Your task to perform on an android device: open app "Adobe Acrobat Reader: Edit PDF" Image 0: 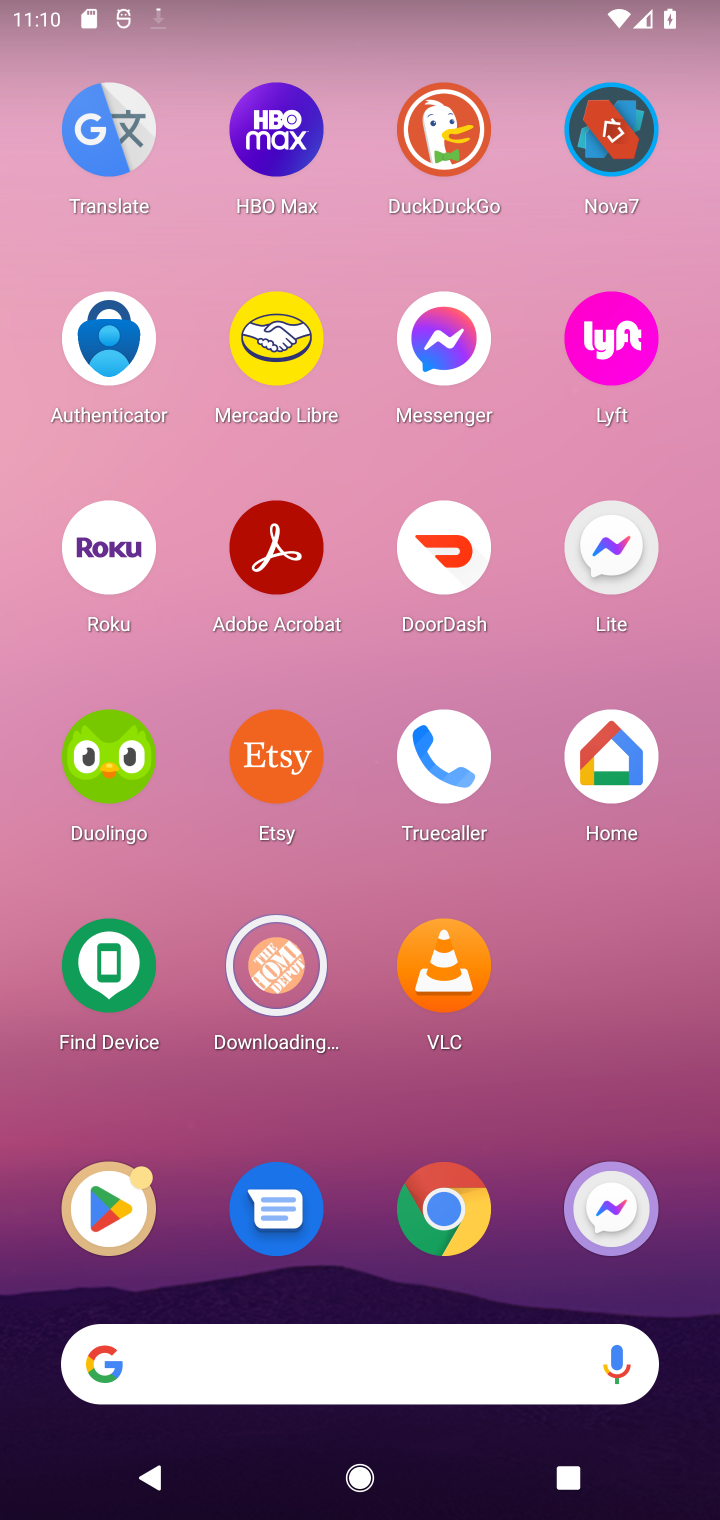
Step 0: drag from (546, 470) to (557, 80)
Your task to perform on an android device: open app "Adobe Acrobat Reader: Edit PDF" Image 1: 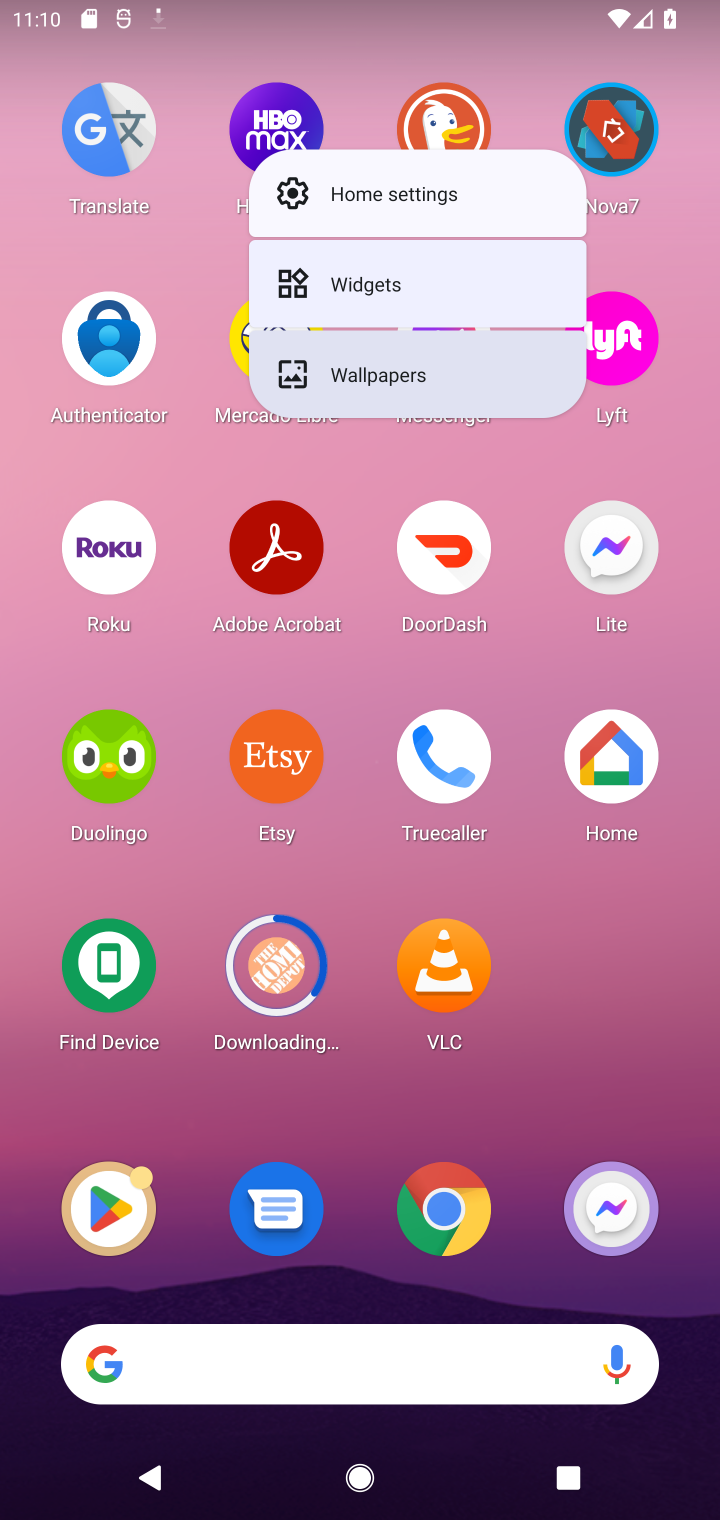
Step 1: click (625, 945)
Your task to perform on an android device: open app "Adobe Acrobat Reader: Edit PDF" Image 2: 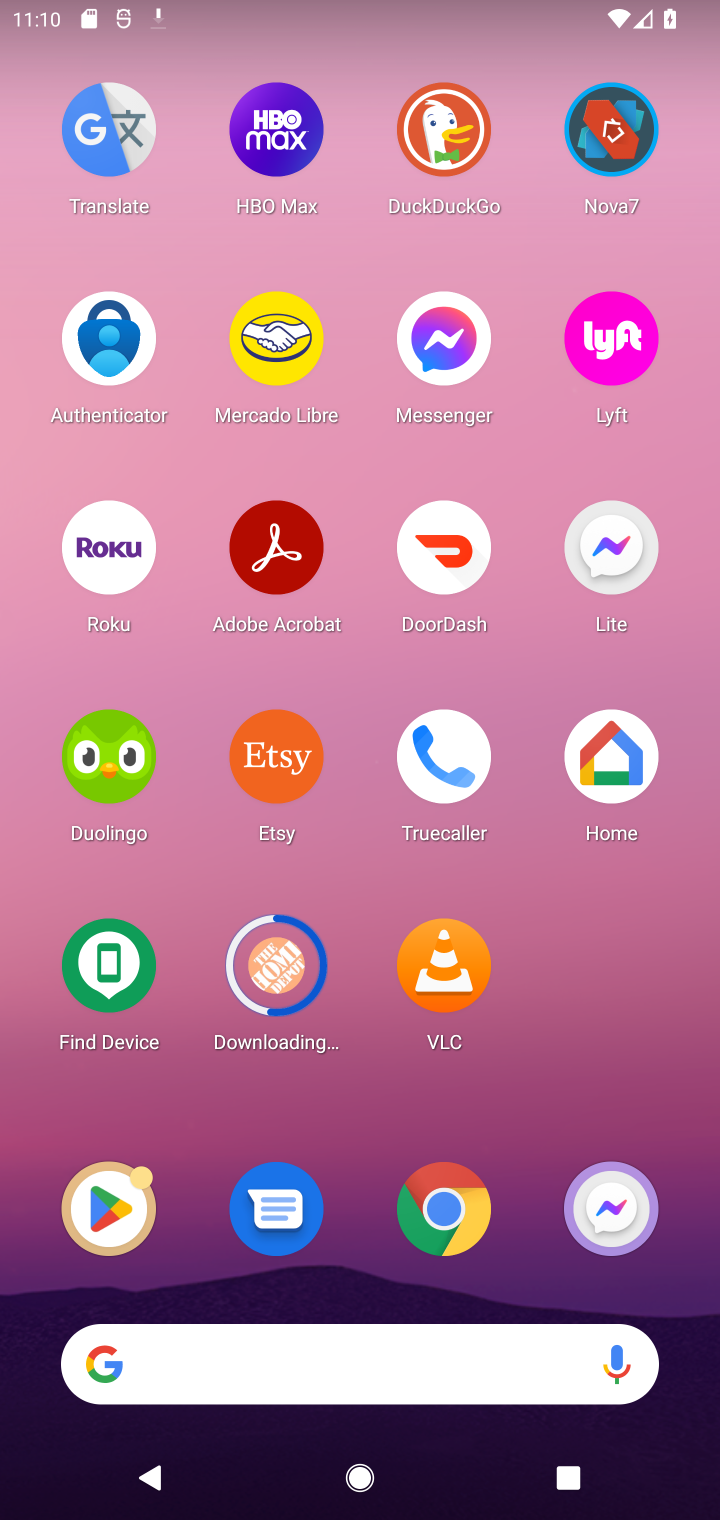
Step 2: drag from (549, 982) to (524, 35)
Your task to perform on an android device: open app "Adobe Acrobat Reader: Edit PDF" Image 3: 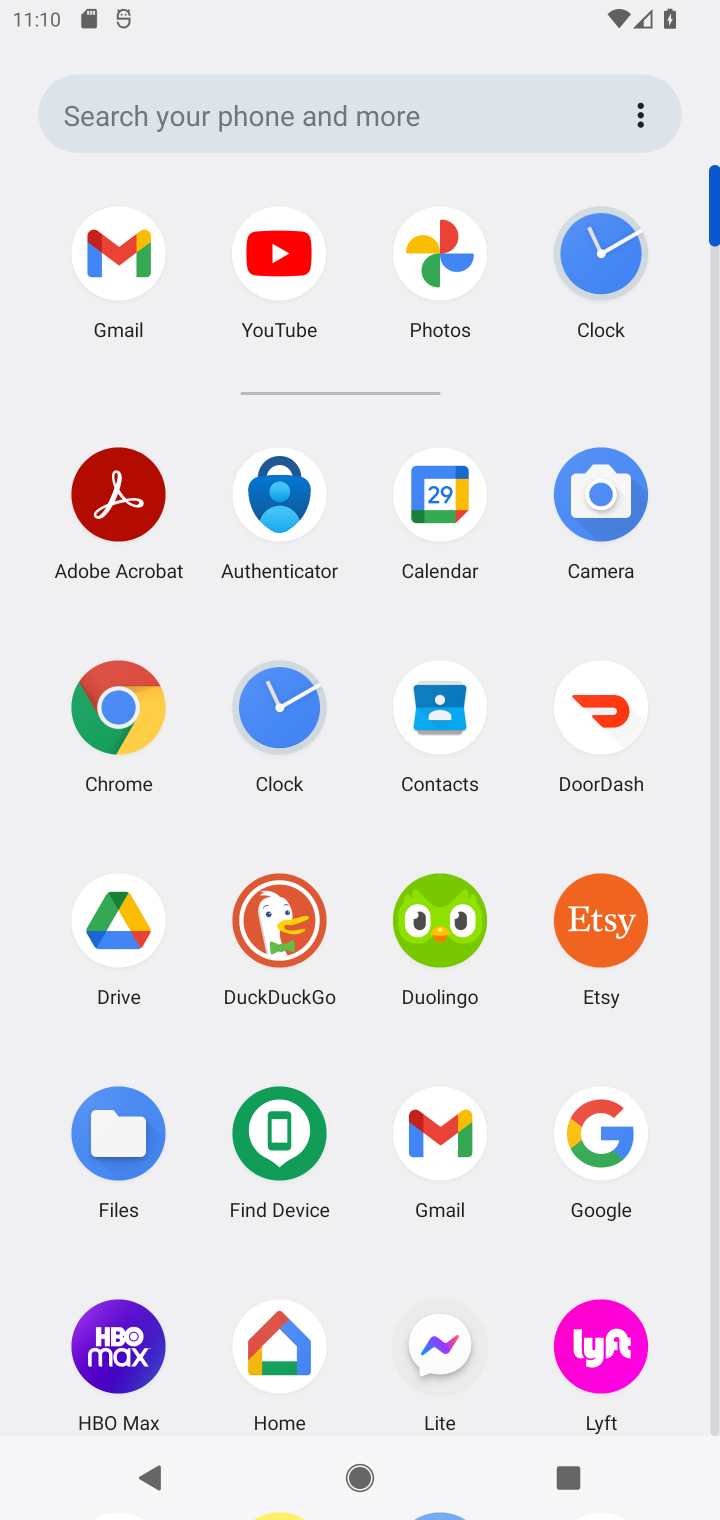
Step 3: drag from (361, 1065) to (393, 460)
Your task to perform on an android device: open app "Adobe Acrobat Reader: Edit PDF" Image 4: 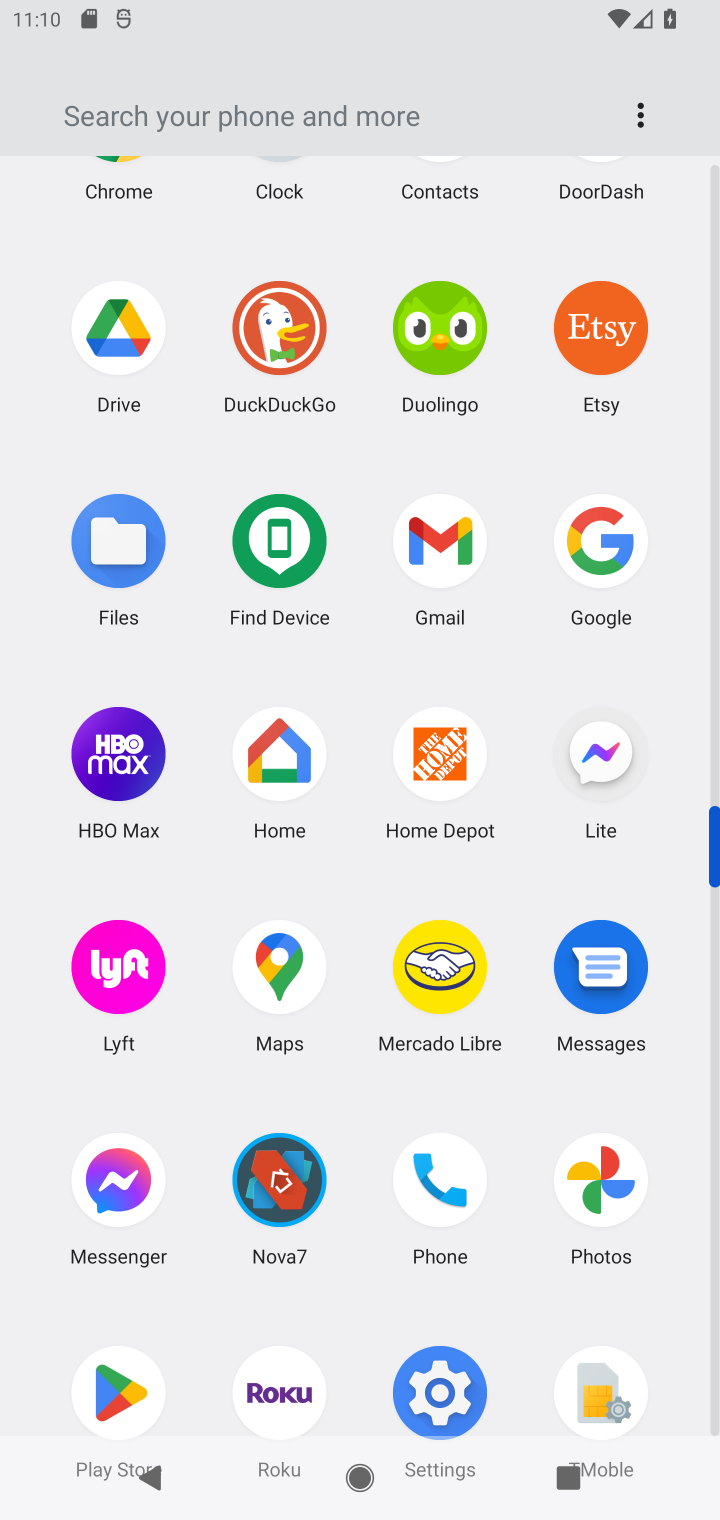
Step 4: click (129, 1377)
Your task to perform on an android device: open app "Adobe Acrobat Reader: Edit PDF" Image 5: 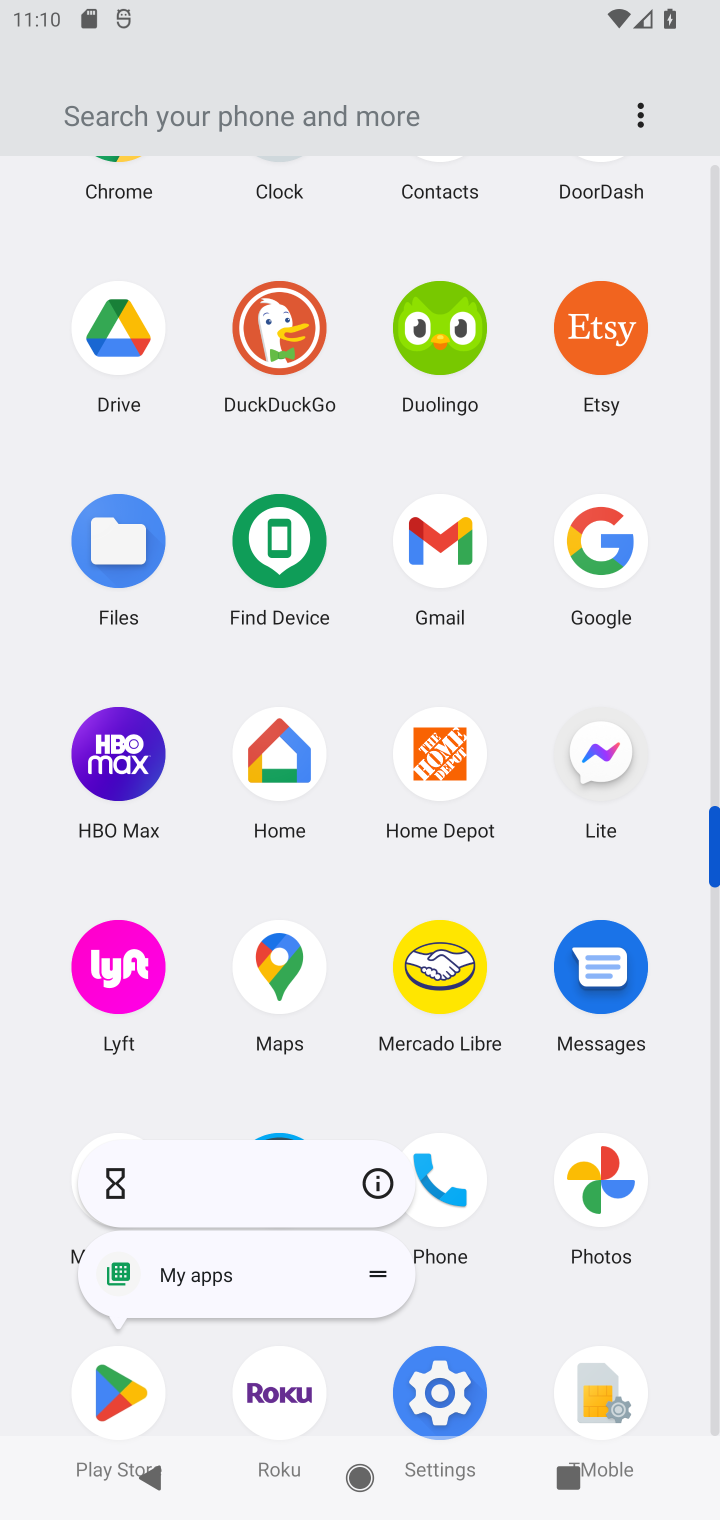
Step 5: click (118, 1427)
Your task to perform on an android device: open app "Adobe Acrobat Reader: Edit PDF" Image 6: 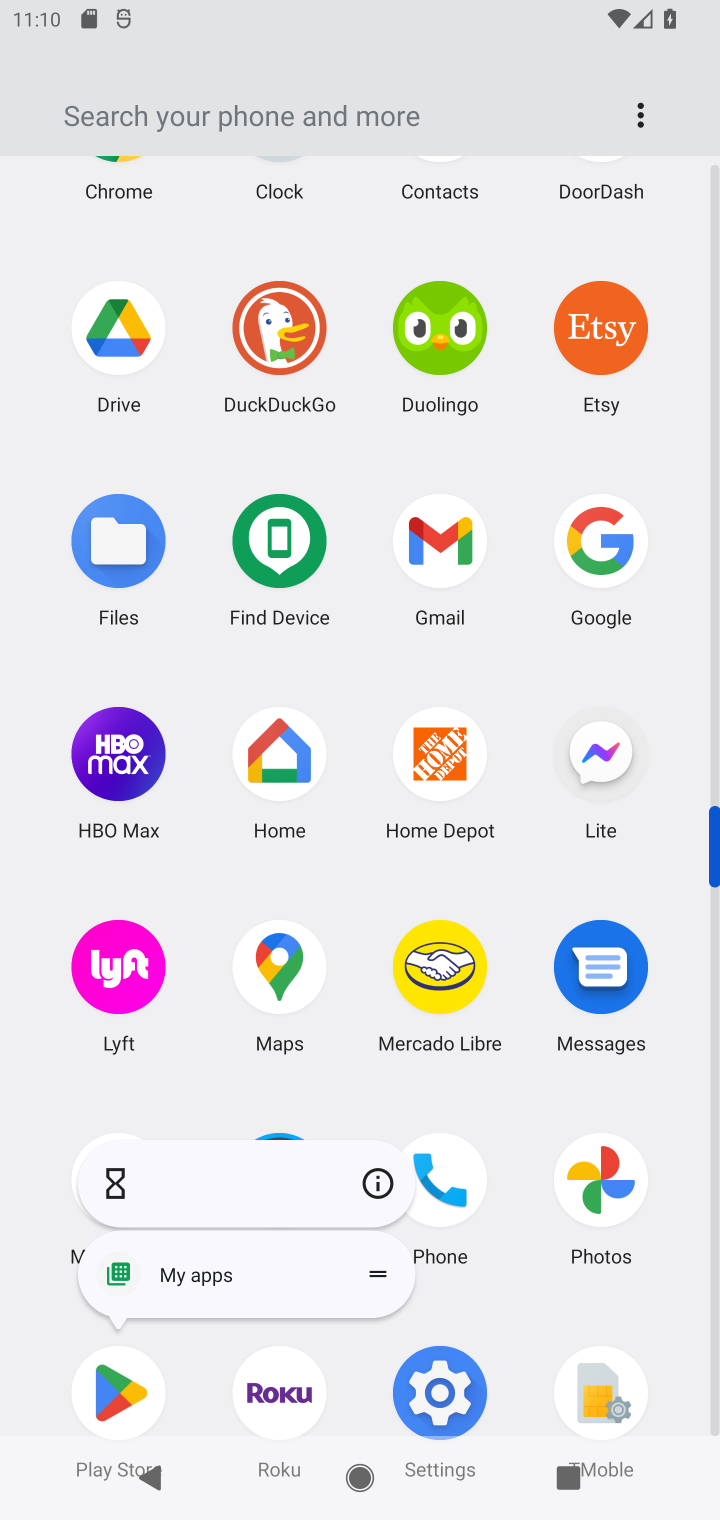
Step 6: click (103, 1400)
Your task to perform on an android device: open app "Adobe Acrobat Reader: Edit PDF" Image 7: 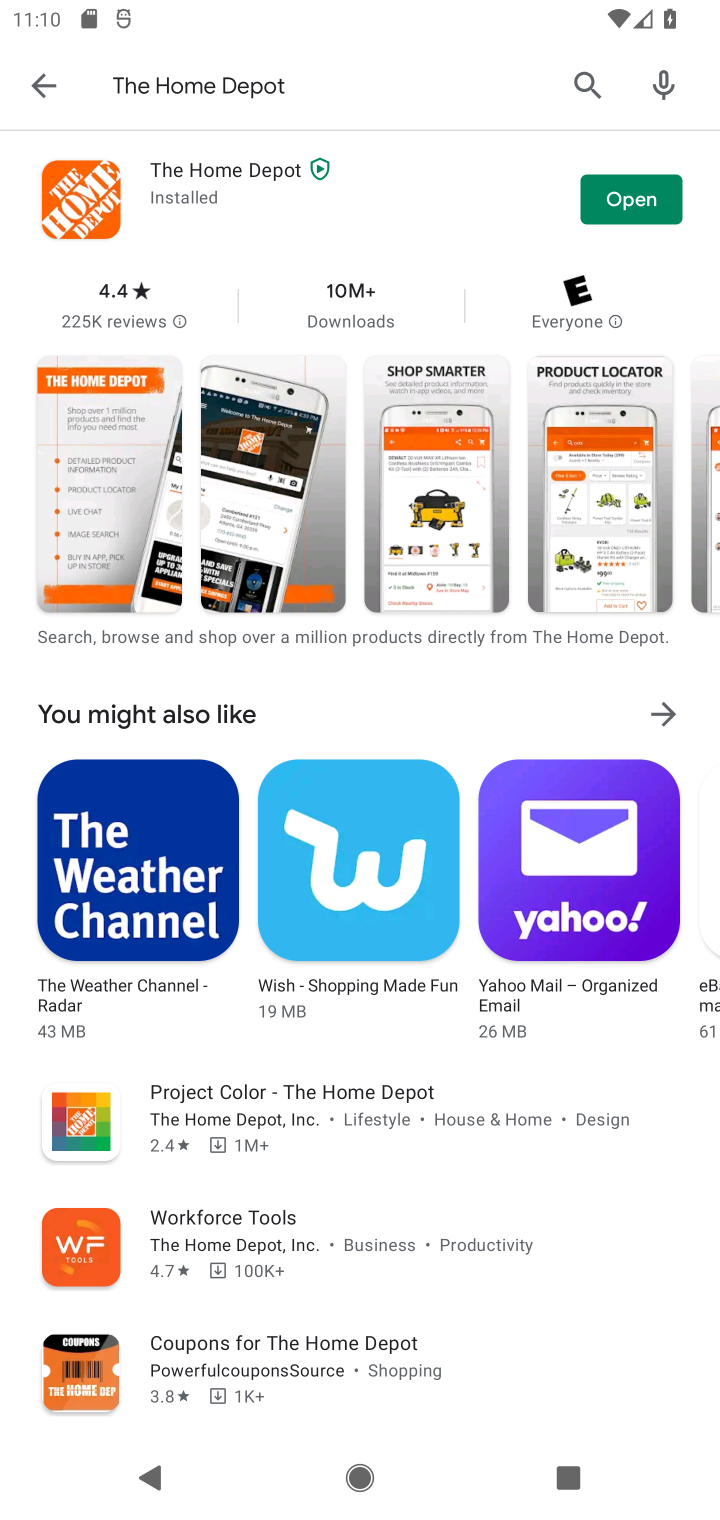
Step 7: click (454, 67)
Your task to perform on an android device: open app "Adobe Acrobat Reader: Edit PDF" Image 8: 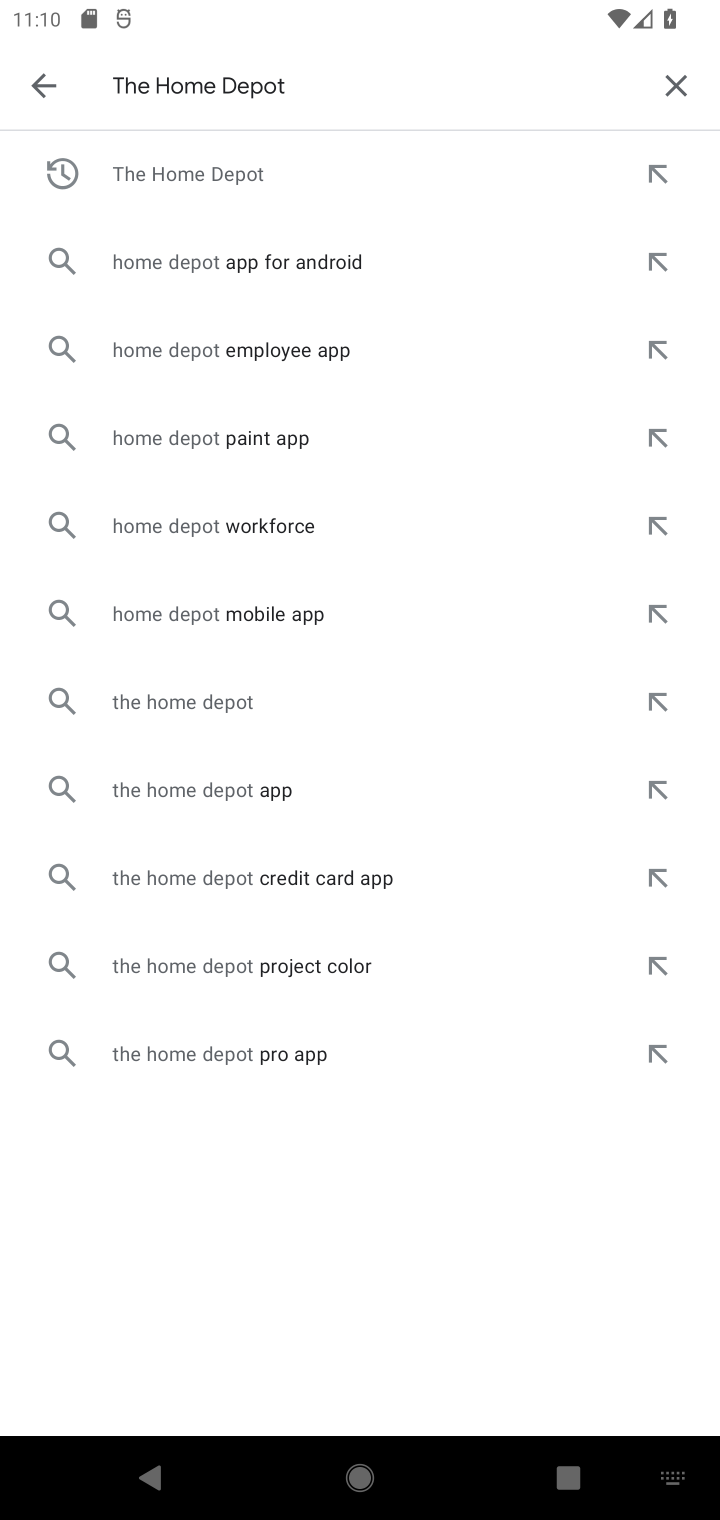
Step 8: click (672, 67)
Your task to perform on an android device: open app "Adobe Acrobat Reader: Edit PDF" Image 9: 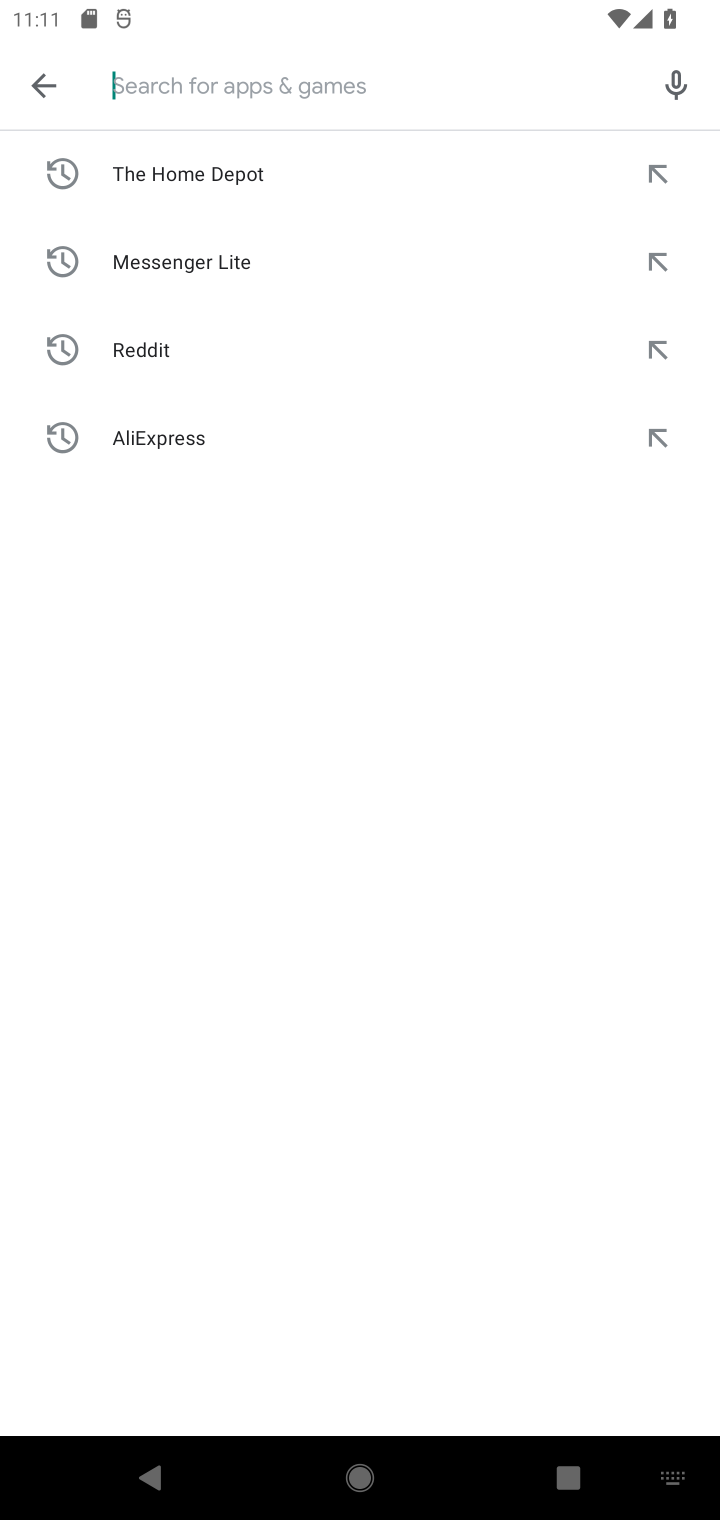
Step 9: type "Adobe Acrobat Reader: Edit PDF"
Your task to perform on an android device: open app "Adobe Acrobat Reader: Edit PDF" Image 10: 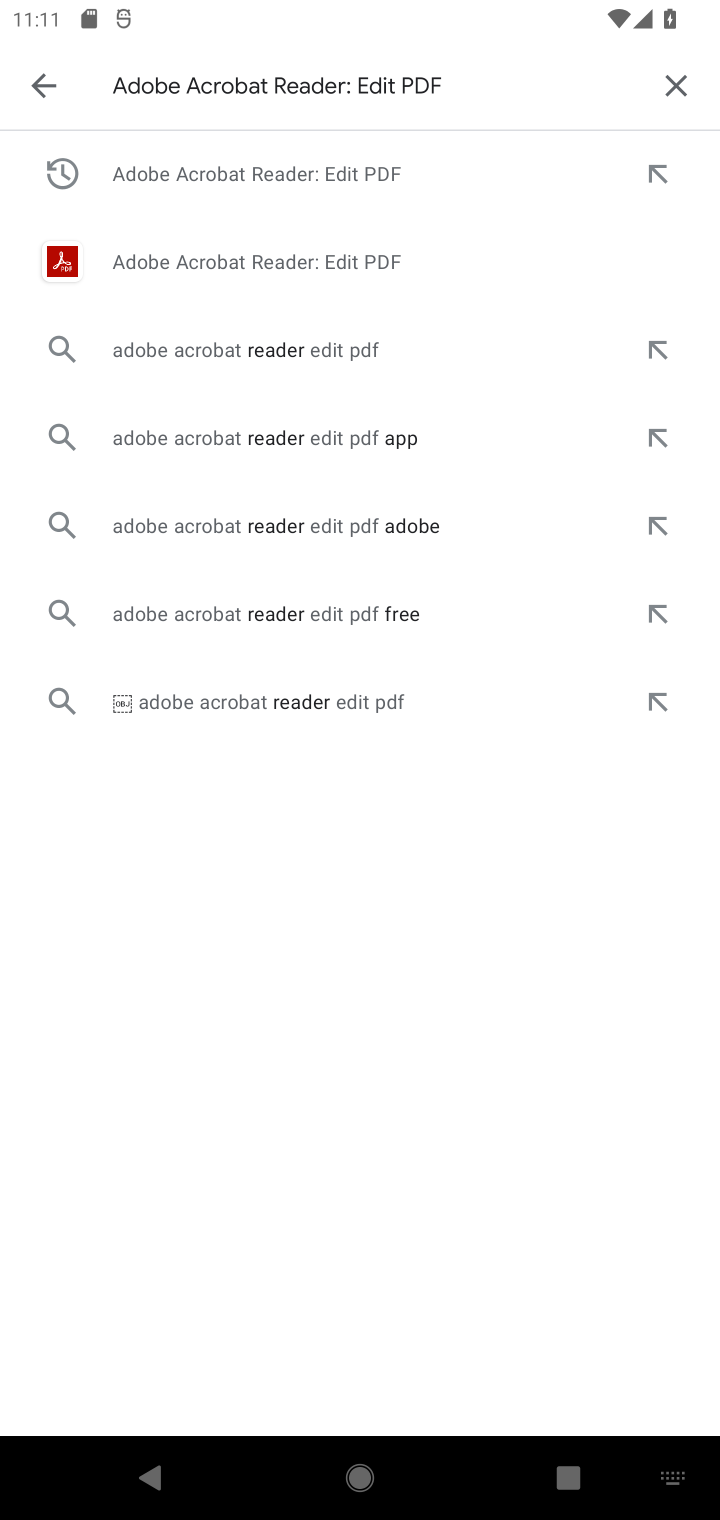
Step 10: press enter
Your task to perform on an android device: open app "Adobe Acrobat Reader: Edit PDF" Image 11: 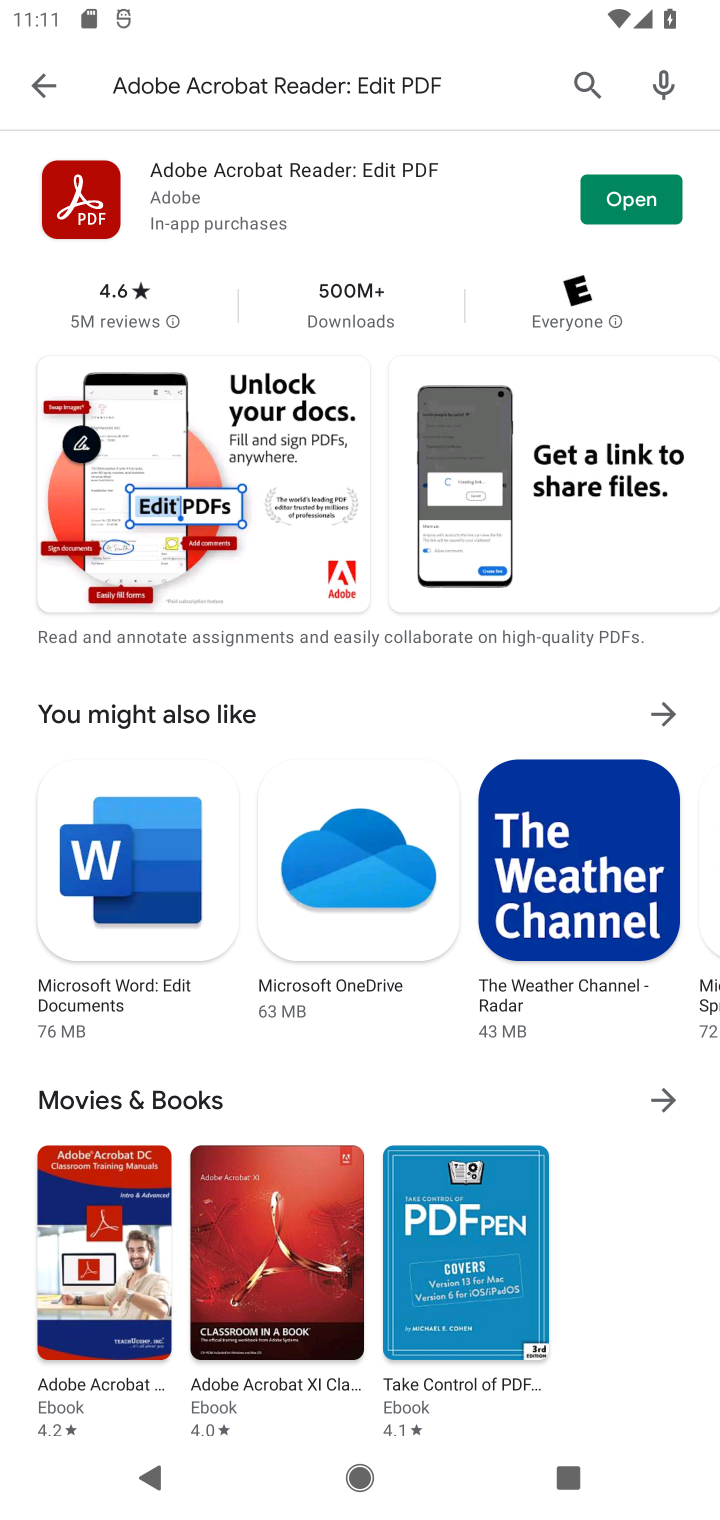
Step 11: click (614, 211)
Your task to perform on an android device: open app "Adobe Acrobat Reader: Edit PDF" Image 12: 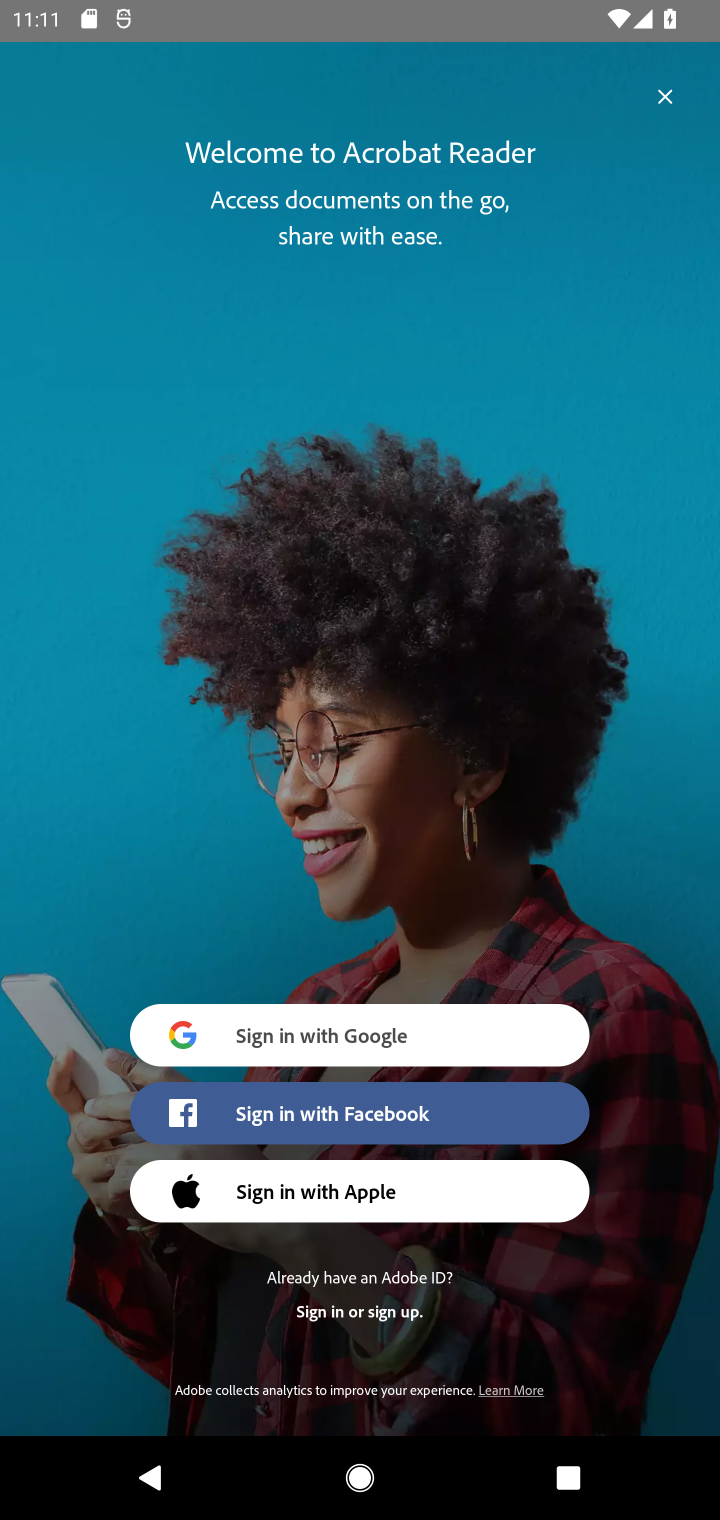
Step 12: task complete